Your task to perform on an android device: open a bookmark in the chrome app Image 0: 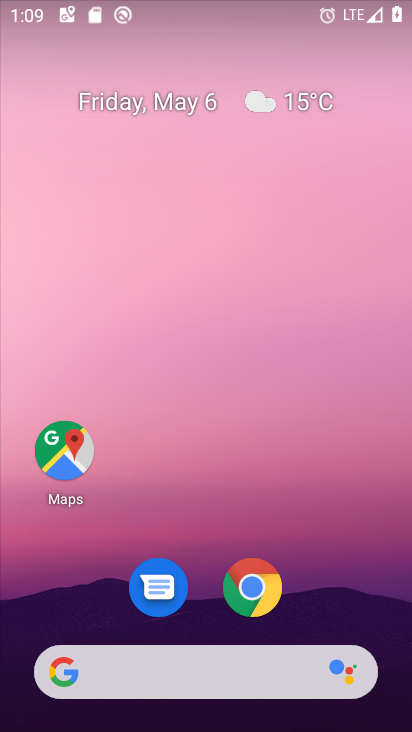
Step 0: click (257, 587)
Your task to perform on an android device: open a bookmark in the chrome app Image 1: 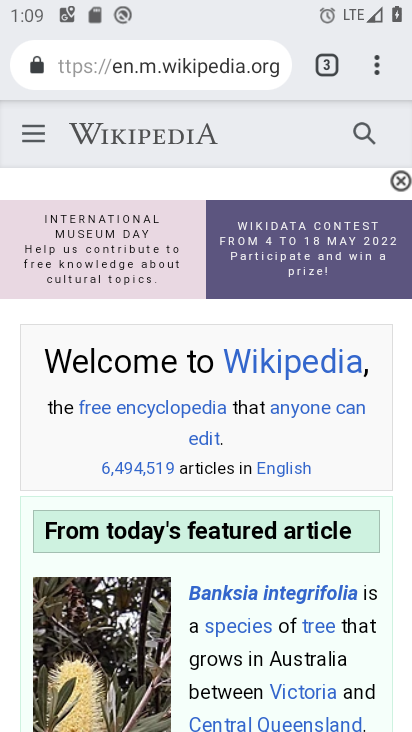
Step 1: click (368, 63)
Your task to perform on an android device: open a bookmark in the chrome app Image 2: 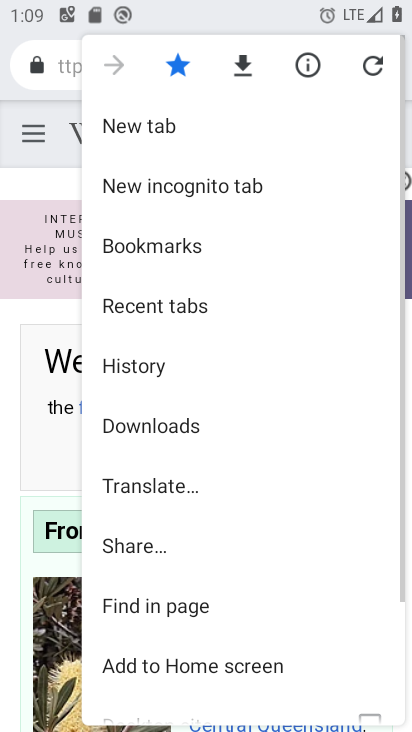
Step 2: click (200, 253)
Your task to perform on an android device: open a bookmark in the chrome app Image 3: 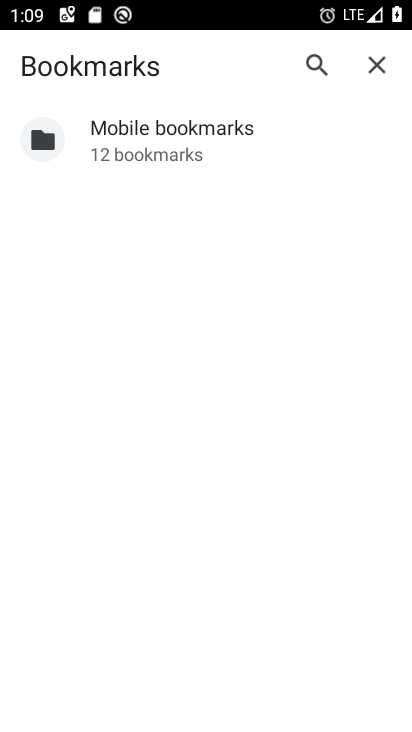
Step 3: click (200, 135)
Your task to perform on an android device: open a bookmark in the chrome app Image 4: 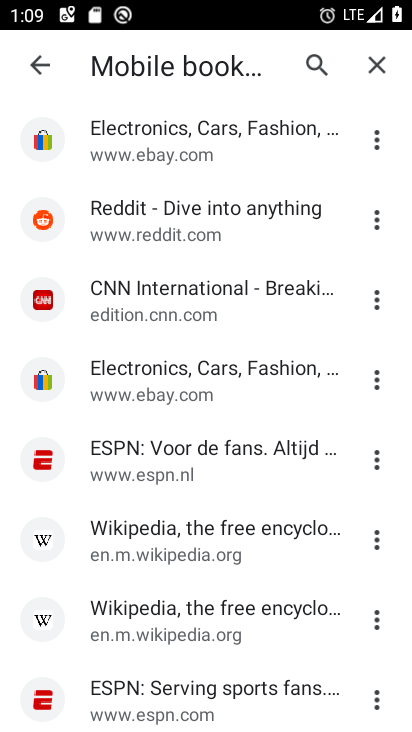
Step 4: click (213, 302)
Your task to perform on an android device: open a bookmark in the chrome app Image 5: 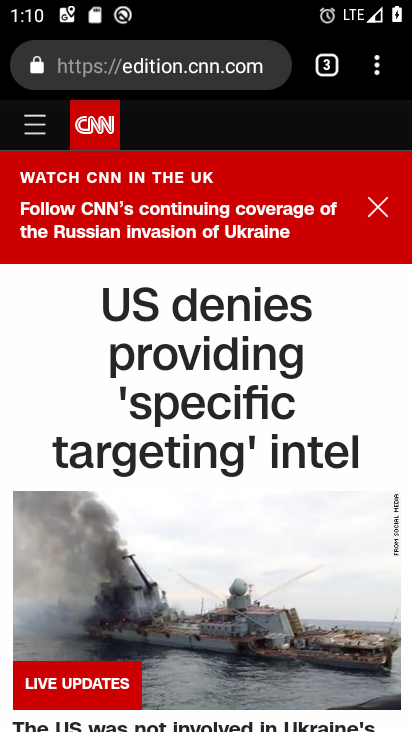
Step 5: task complete